Your task to perform on an android device: Show the shopping cart on ebay.com. Search for razer blade on ebay.com, select the first entry, and add it to the cart. Image 0: 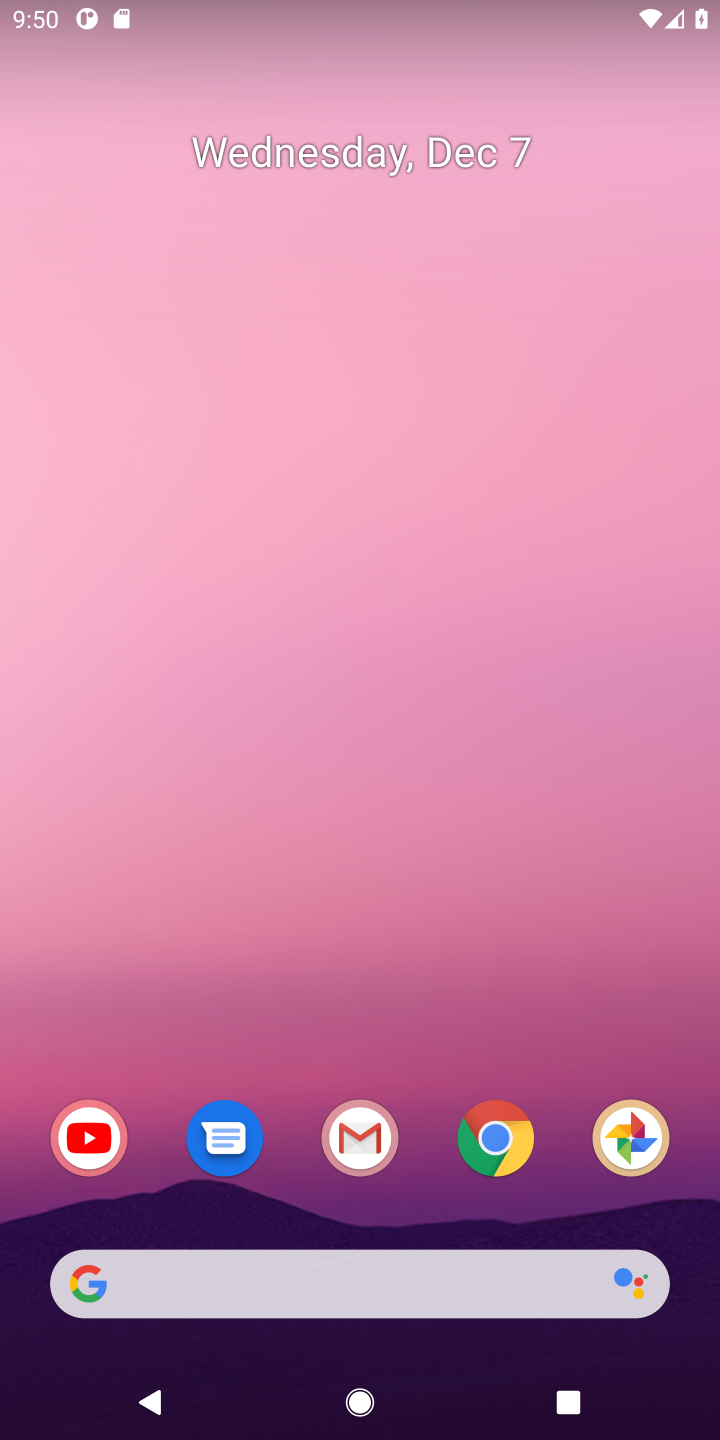
Step 0: press home button
Your task to perform on an android device: Show the shopping cart on ebay.com. Search for razer blade on ebay.com, select the first entry, and add it to the cart. Image 1: 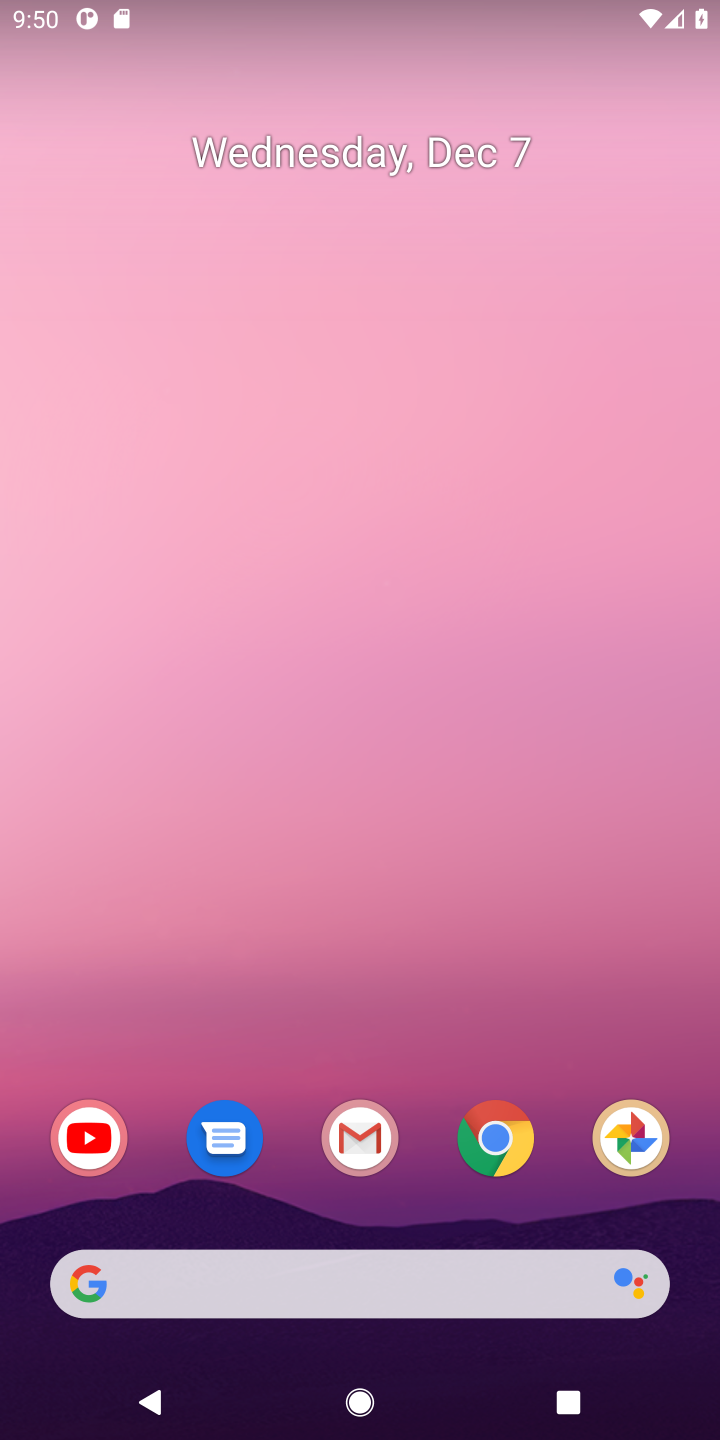
Step 1: click (142, 1287)
Your task to perform on an android device: Show the shopping cart on ebay.com. Search for razer blade on ebay.com, select the first entry, and add it to the cart. Image 2: 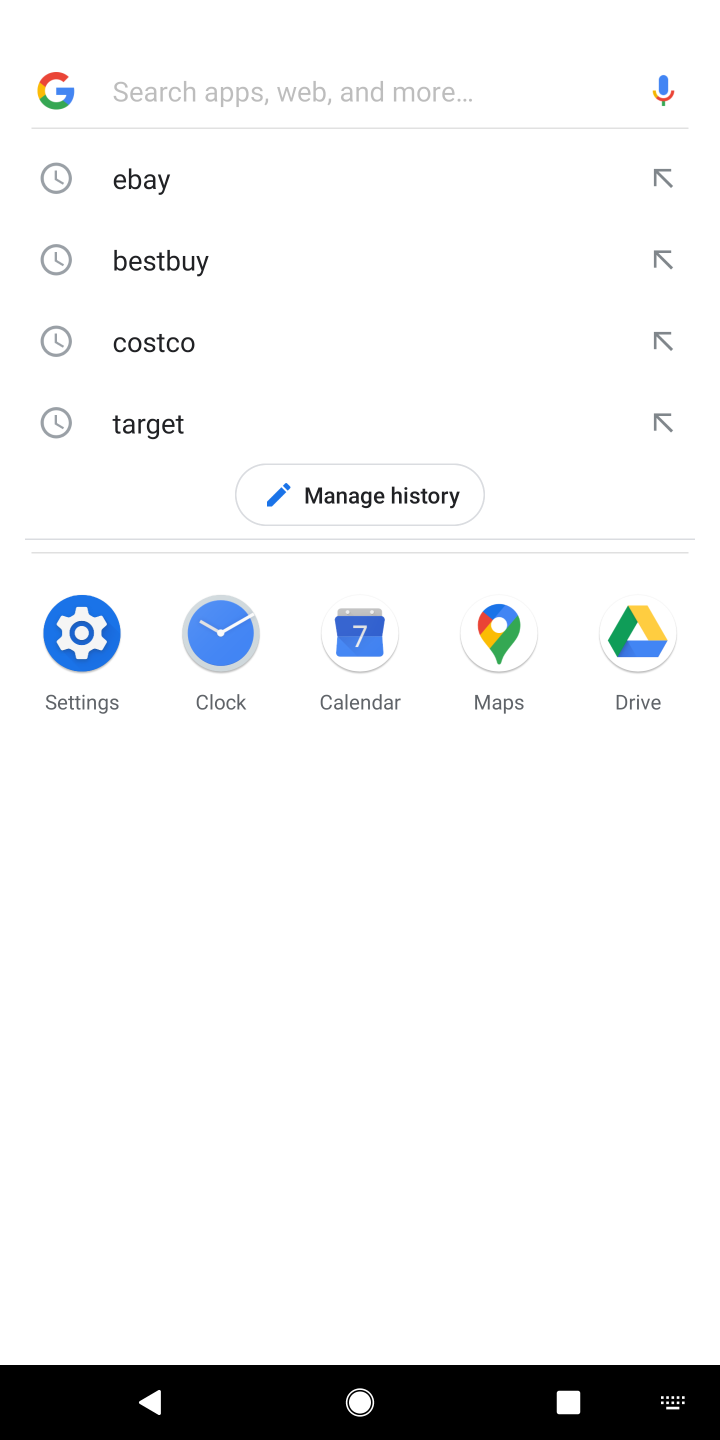
Step 2: type "ebay.com"
Your task to perform on an android device: Show the shopping cart on ebay.com. Search for razer blade on ebay.com, select the first entry, and add it to the cart. Image 3: 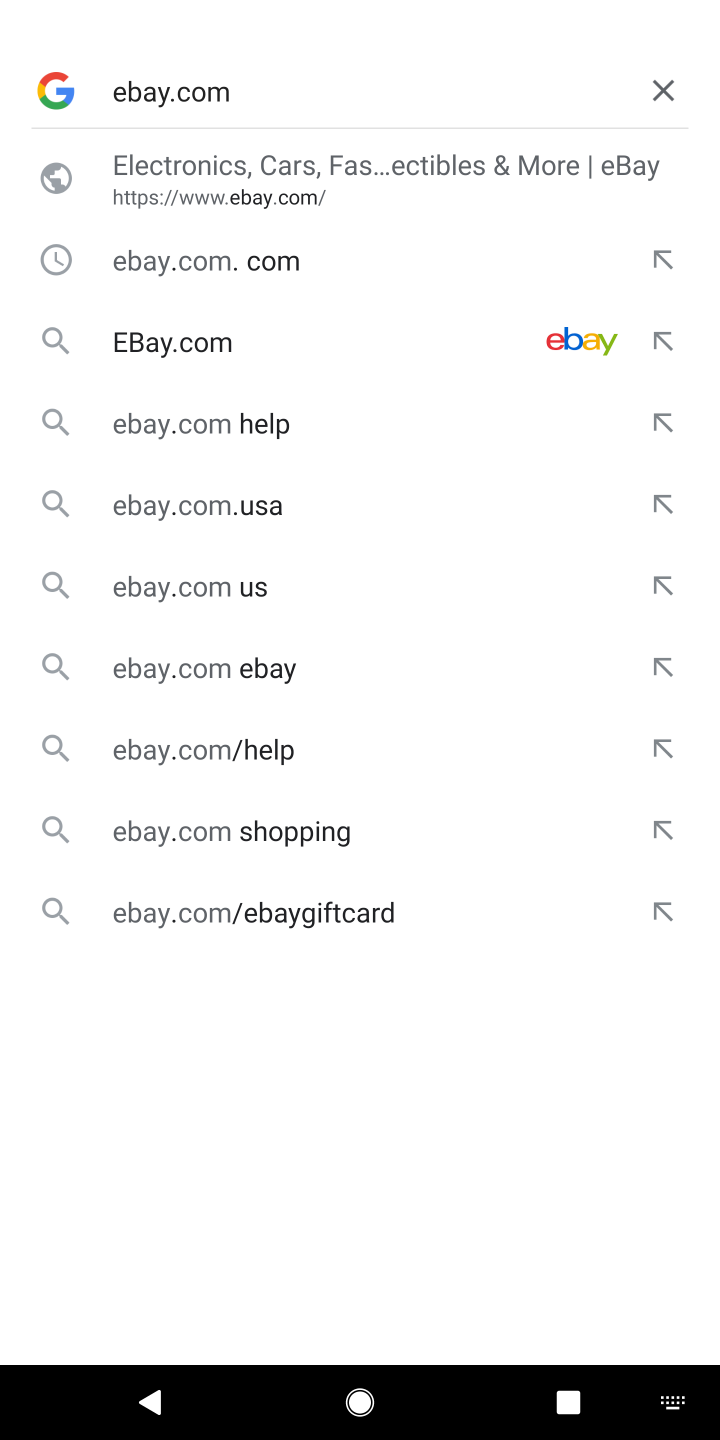
Step 3: press enter
Your task to perform on an android device: Show the shopping cart on ebay.com. Search for razer blade on ebay.com, select the first entry, and add it to the cart. Image 4: 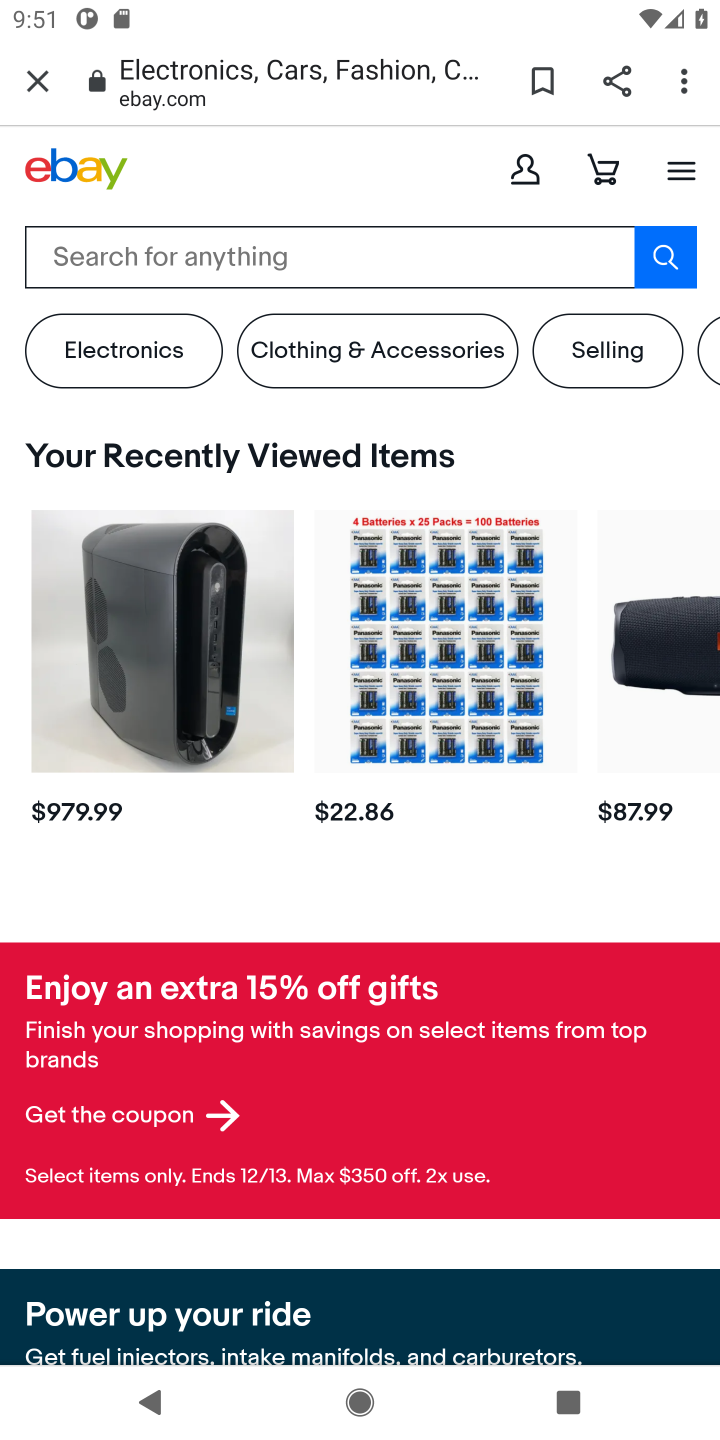
Step 4: click (607, 166)
Your task to perform on an android device: Show the shopping cart on ebay.com. Search for razer blade on ebay.com, select the first entry, and add it to the cart. Image 5: 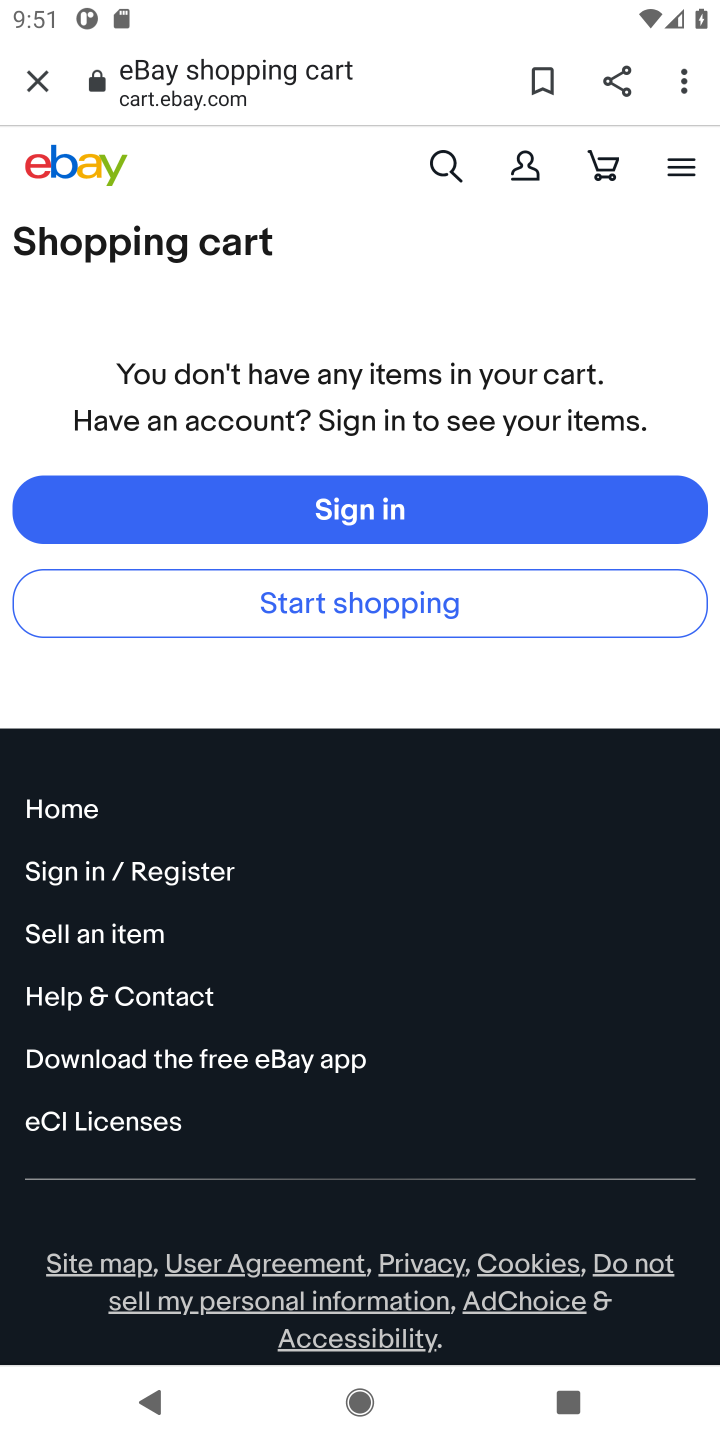
Step 5: click (437, 156)
Your task to perform on an android device: Show the shopping cart on ebay.com. Search for razer blade on ebay.com, select the first entry, and add it to the cart. Image 6: 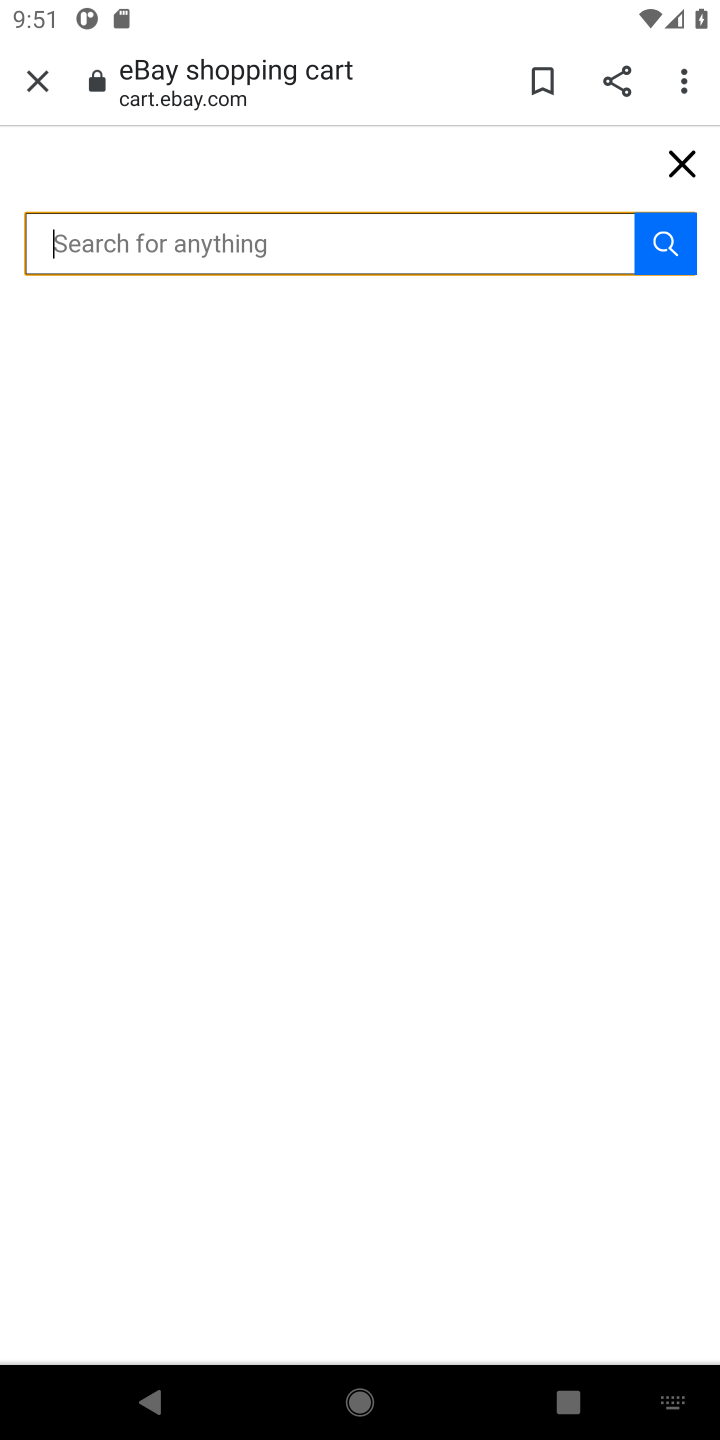
Step 6: press enter
Your task to perform on an android device: Show the shopping cart on ebay.com. Search for razer blade on ebay.com, select the first entry, and add it to the cart. Image 7: 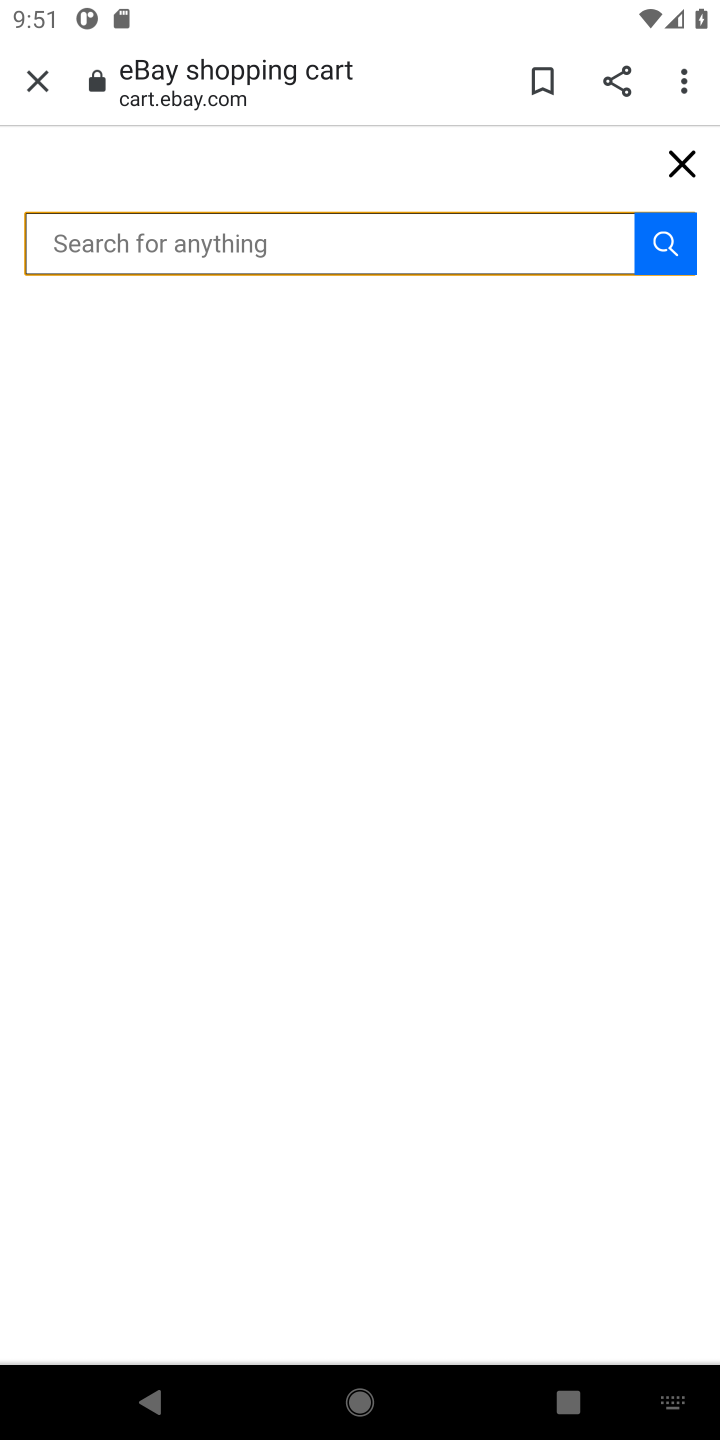
Step 7: type "razer blade"
Your task to perform on an android device: Show the shopping cart on ebay.com. Search for razer blade on ebay.com, select the first entry, and add it to the cart. Image 8: 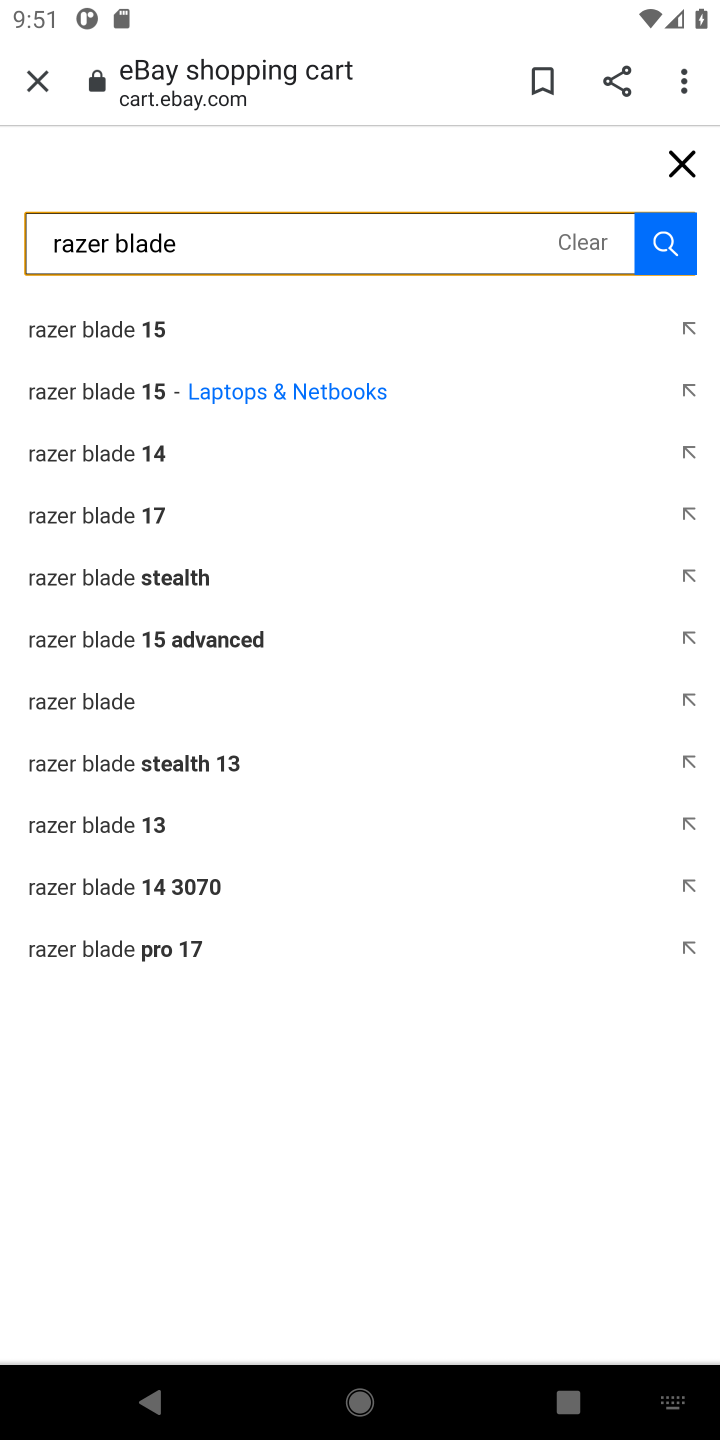
Step 8: press enter
Your task to perform on an android device: Show the shopping cart on ebay.com. Search for razer blade on ebay.com, select the first entry, and add it to the cart. Image 9: 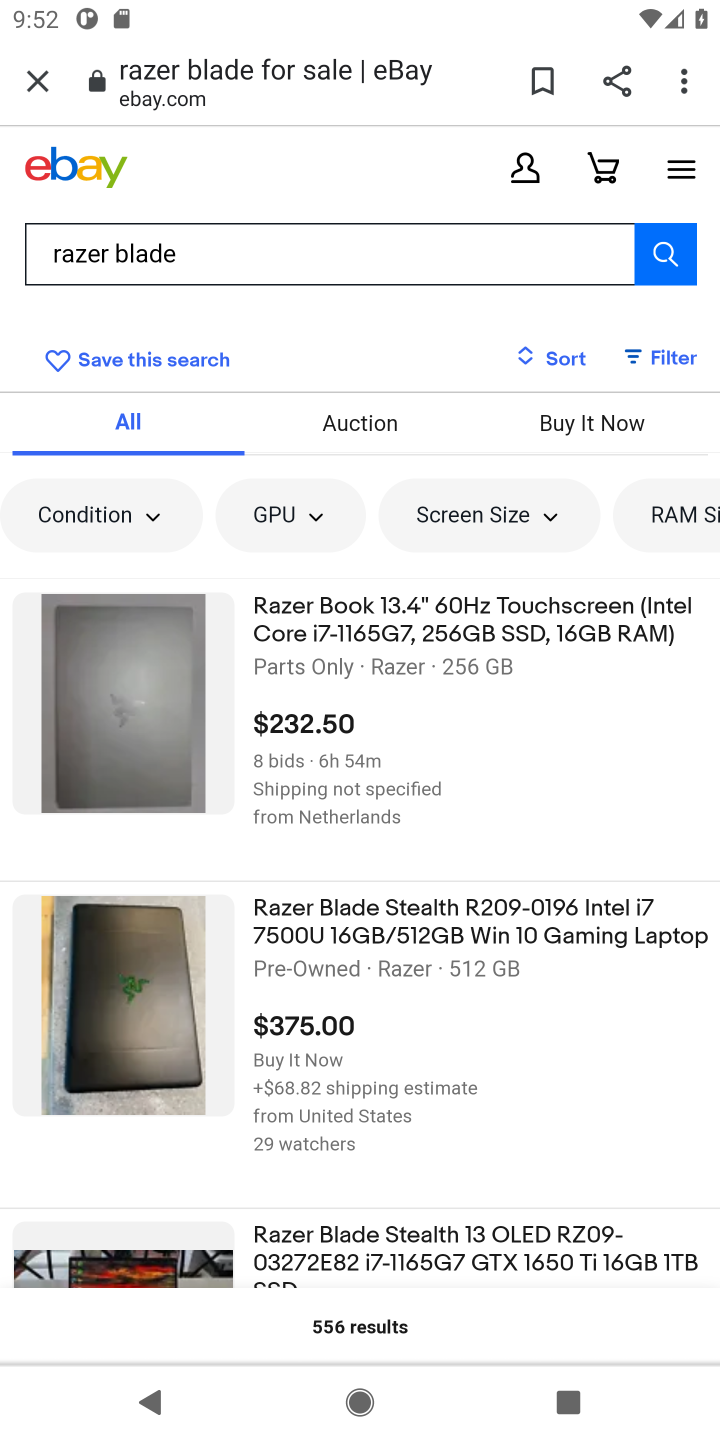
Step 9: click (446, 917)
Your task to perform on an android device: Show the shopping cart on ebay.com. Search for razer blade on ebay.com, select the first entry, and add it to the cart. Image 10: 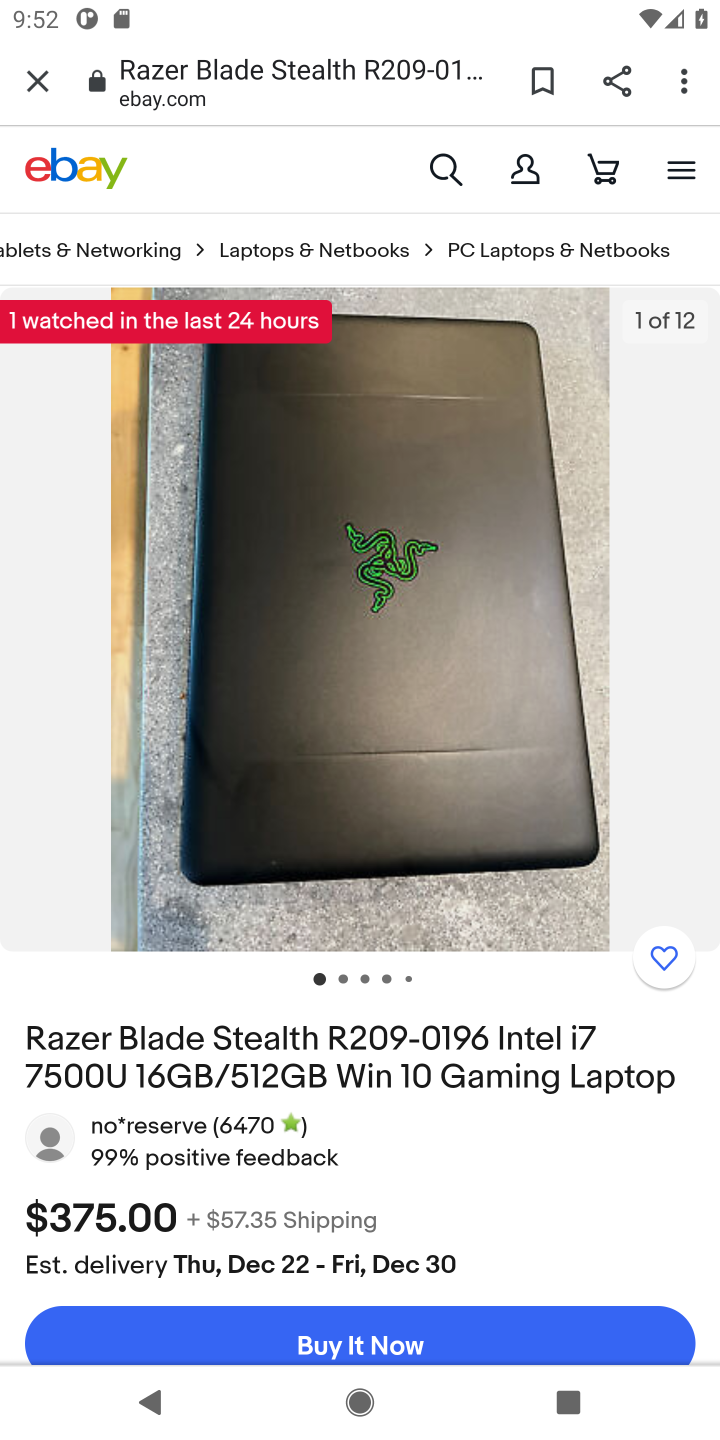
Step 10: drag from (447, 1142) to (461, 514)
Your task to perform on an android device: Show the shopping cart on ebay.com. Search for razer blade on ebay.com, select the first entry, and add it to the cart. Image 11: 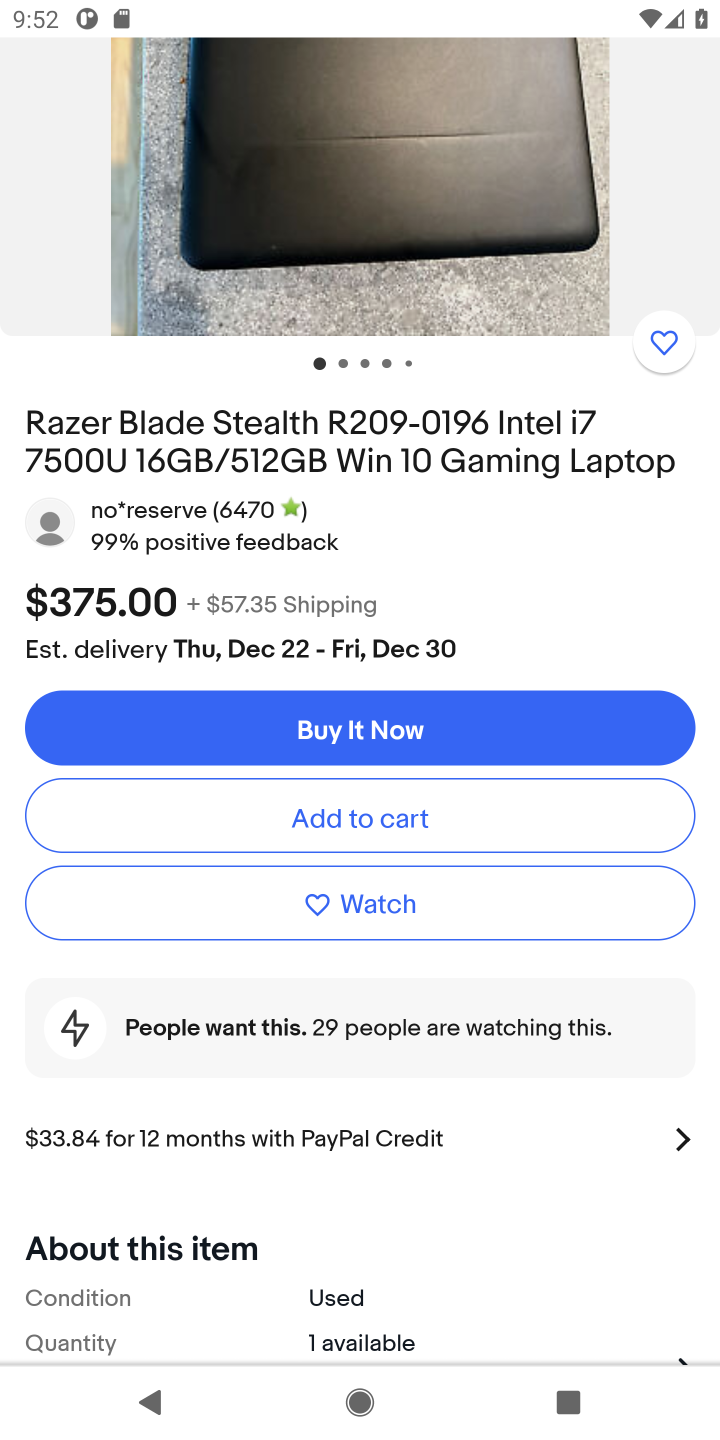
Step 11: click (367, 819)
Your task to perform on an android device: Show the shopping cart on ebay.com. Search for razer blade on ebay.com, select the first entry, and add it to the cart. Image 12: 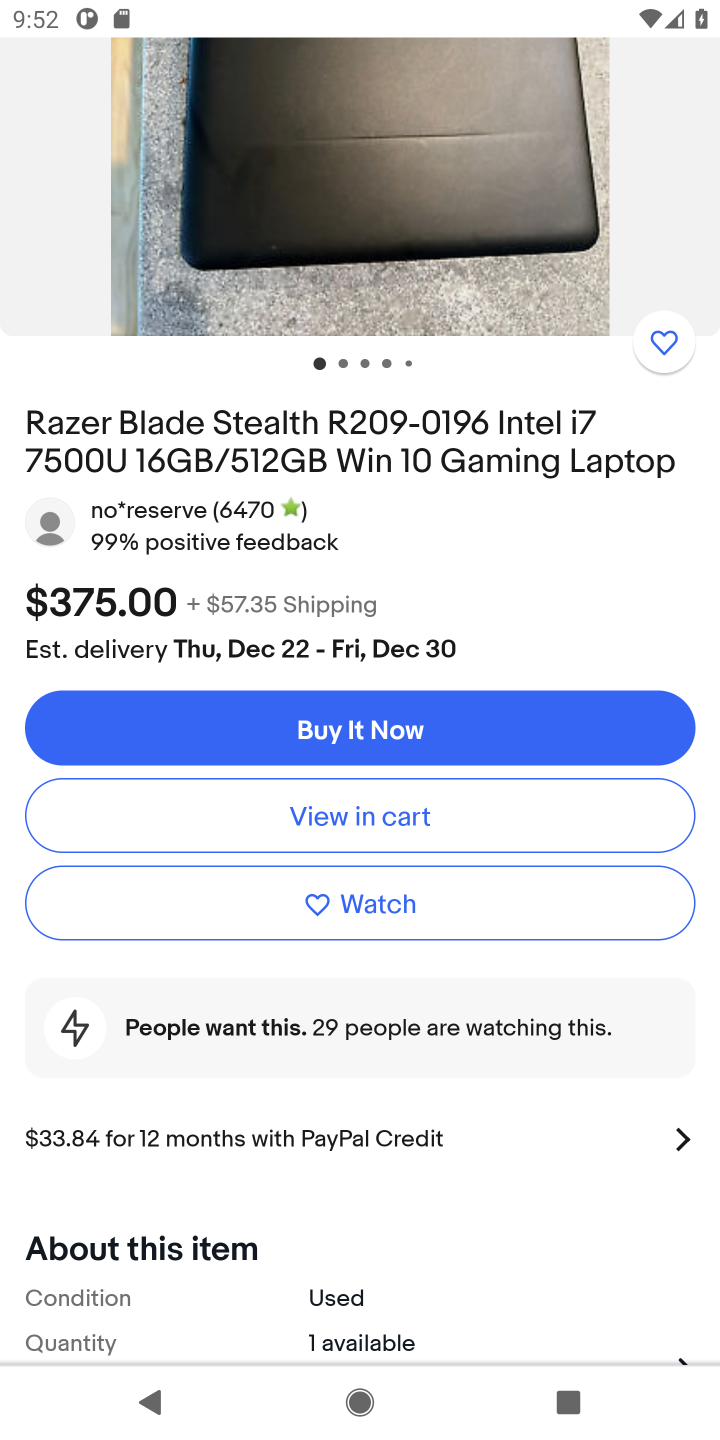
Step 12: task complete